Your task to perform on an android device: uninstall "PUBG MOBILE" Image 0: 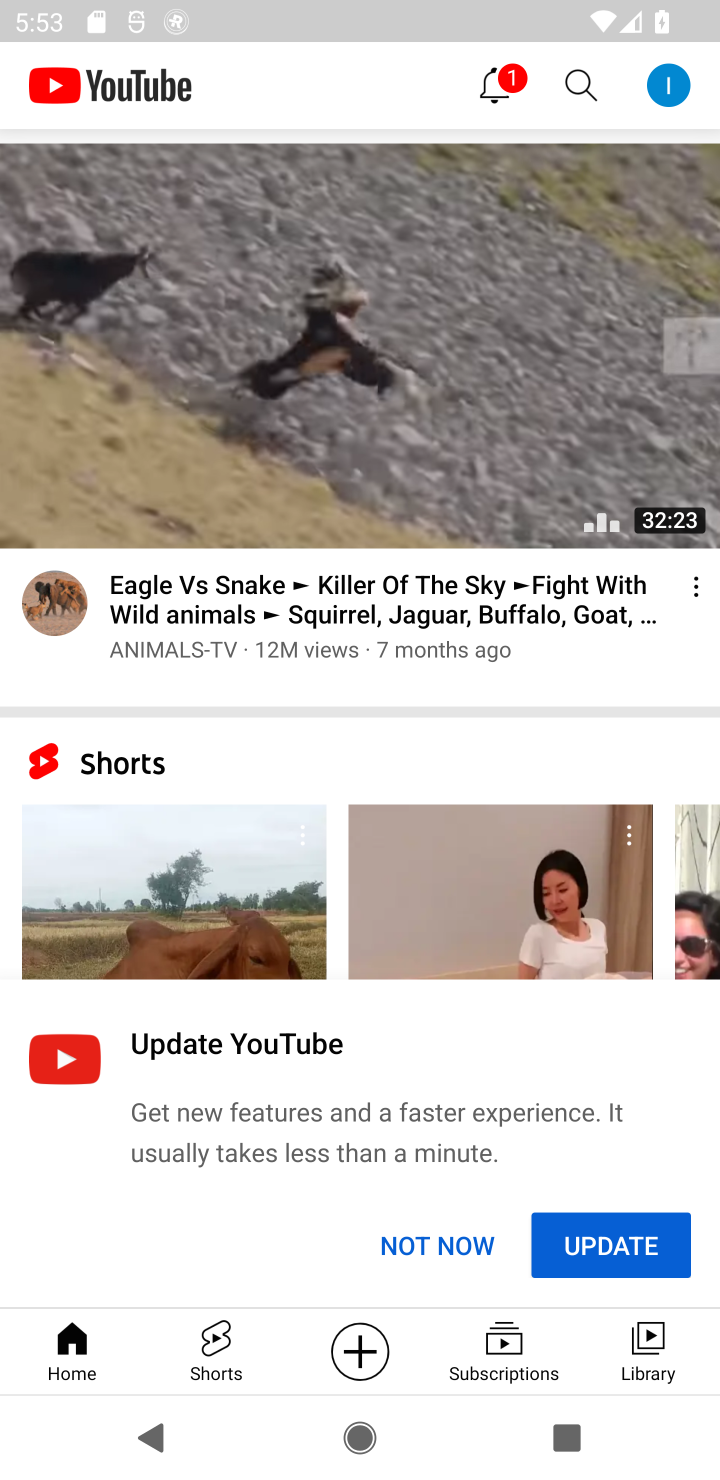
Step 0: press home button
Your task to perform on an android device: uninstall "PUBG MOBILE" Image 1: 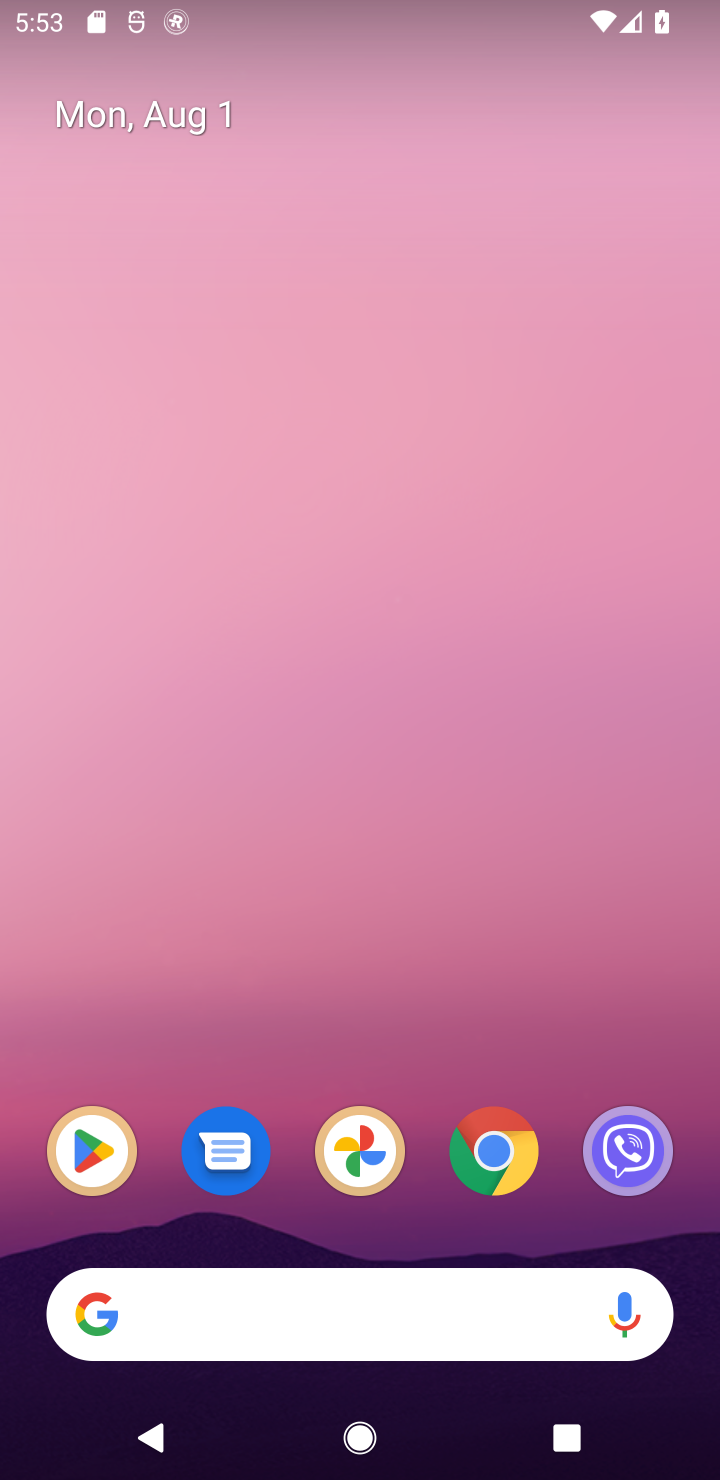
Step 1: click (90, 1148)
Your task to perform on an android device: uninstall "PUBG MOBILE" Image 2: 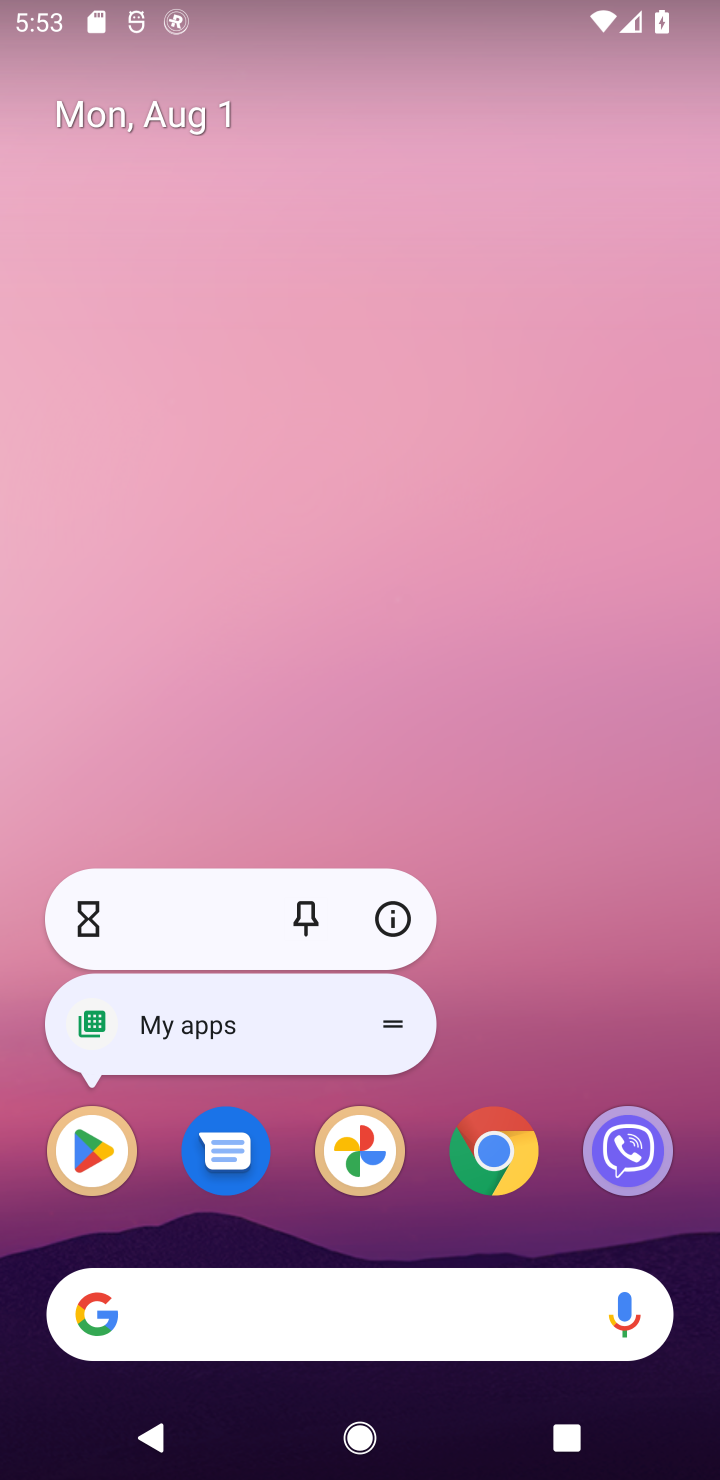
Step 2: click (88, 1158)
Your task to perform on an android device: uninstall "PUBG MOBILE" Image 3: 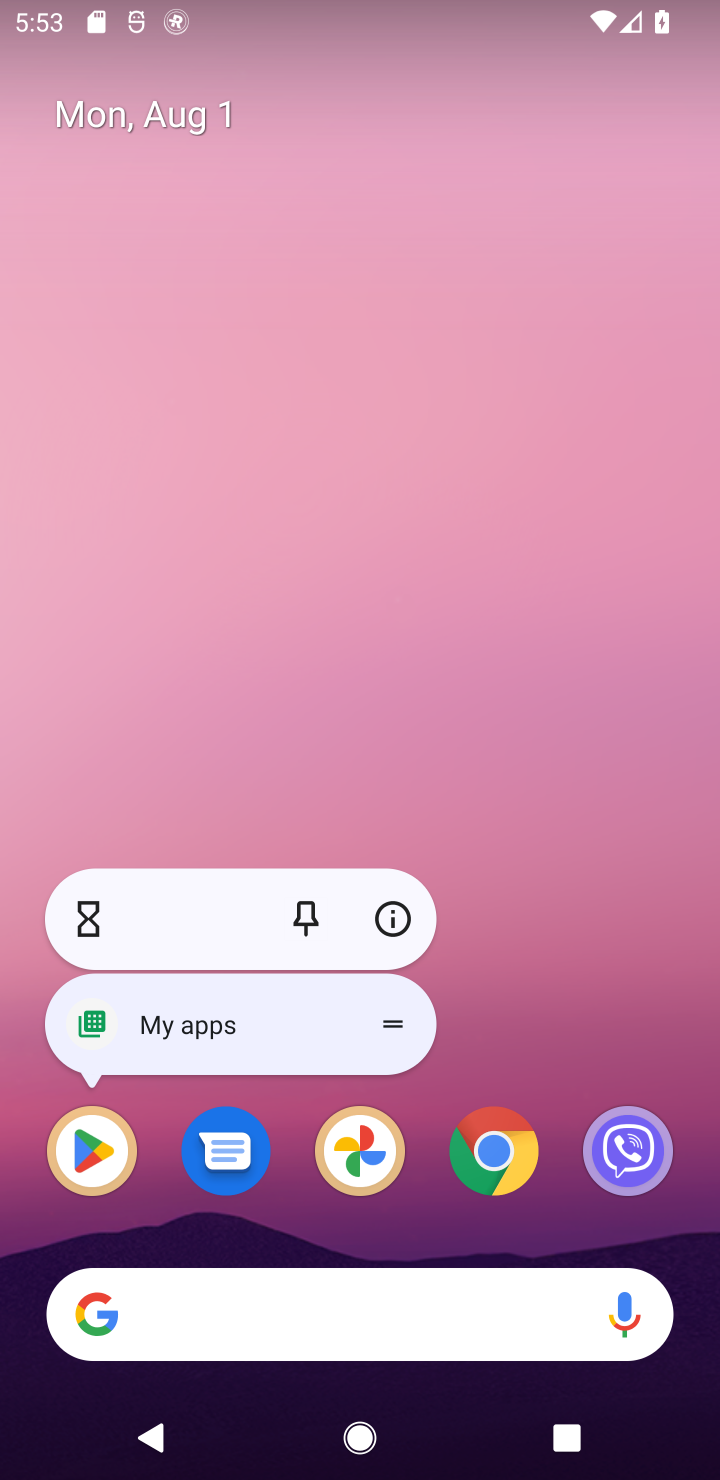
Step 3: click (88, 1158)
Your task to perform on an android device: uninstall "PUBG MOBILE" Image 4: 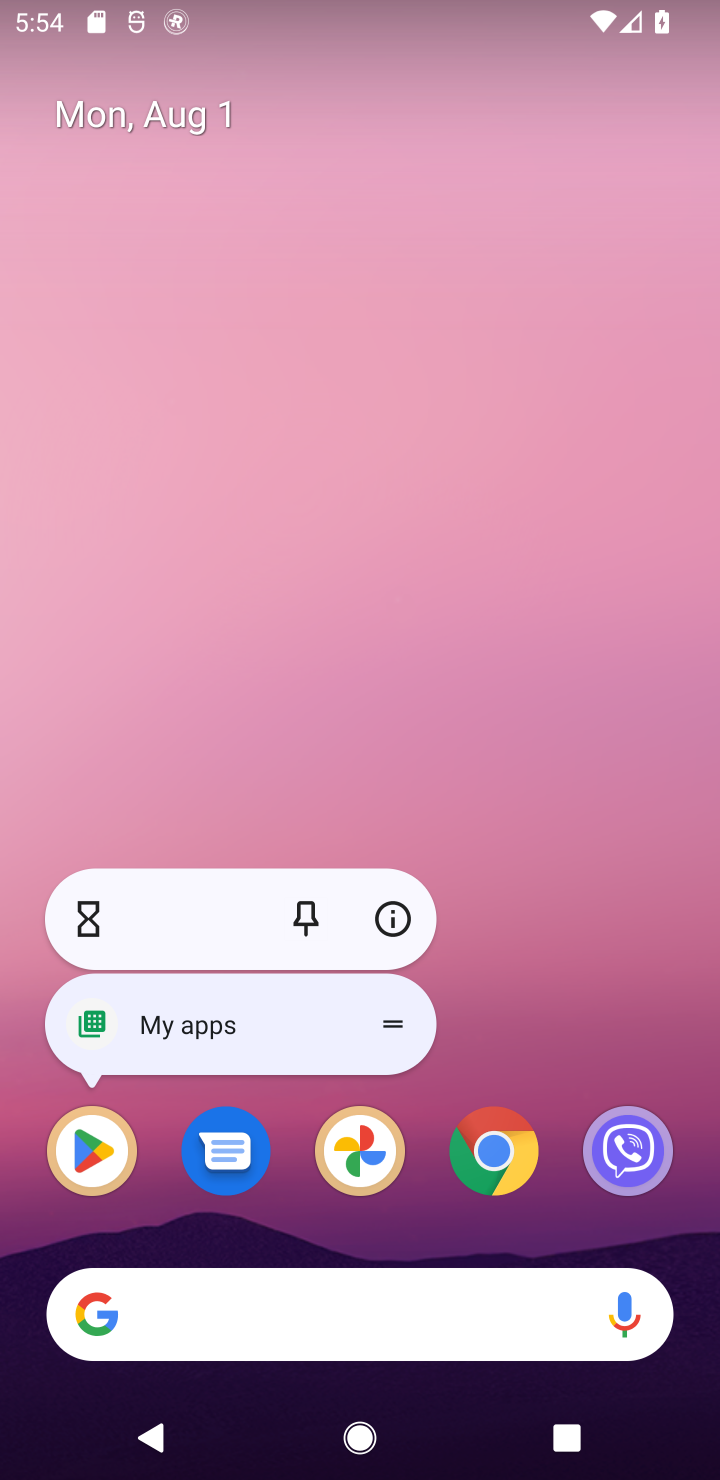
Step 4: click (88, 1158)
Your task to perform on an android device: uninstall "PUBG MOBILE" Image 5: 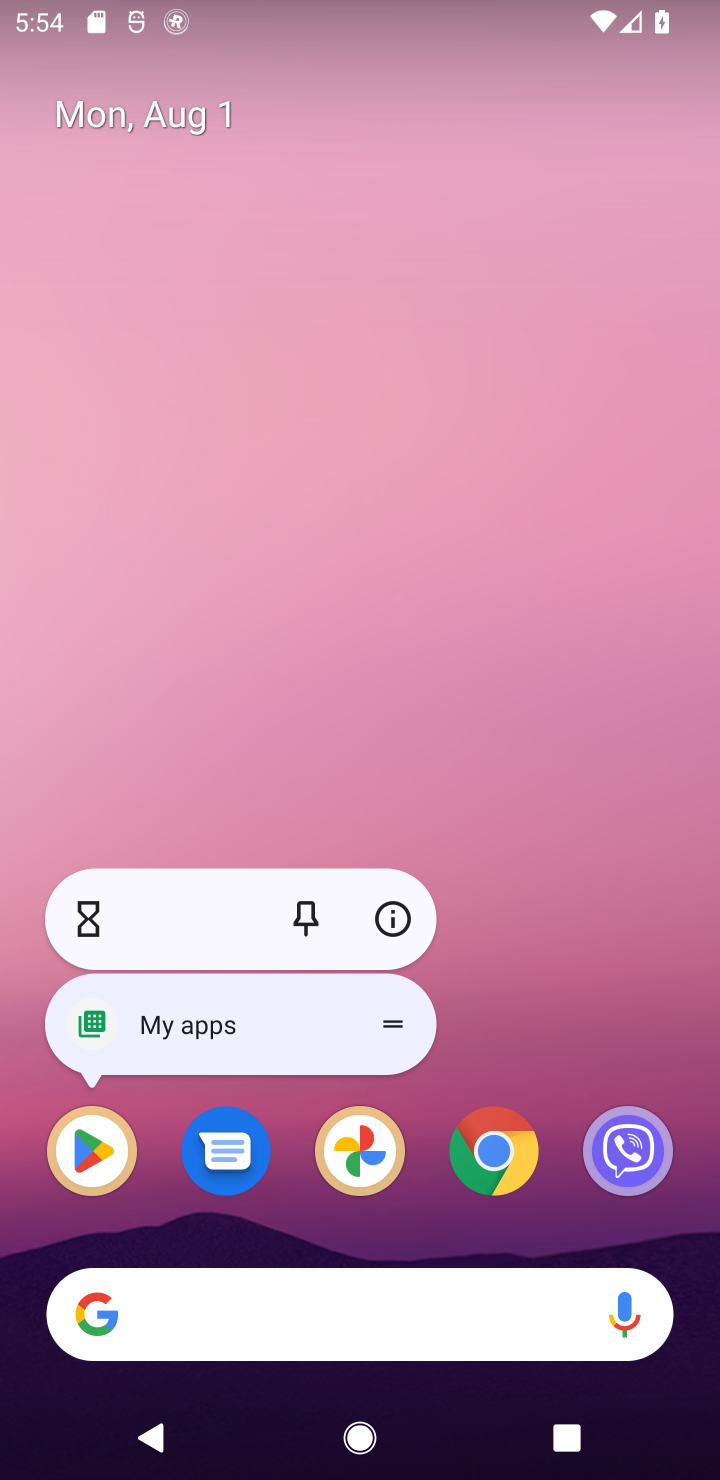
Step 5: click (88, 1158)
Your task to perform on an android device: uninstall "PUBG MOBILE" Image 6: 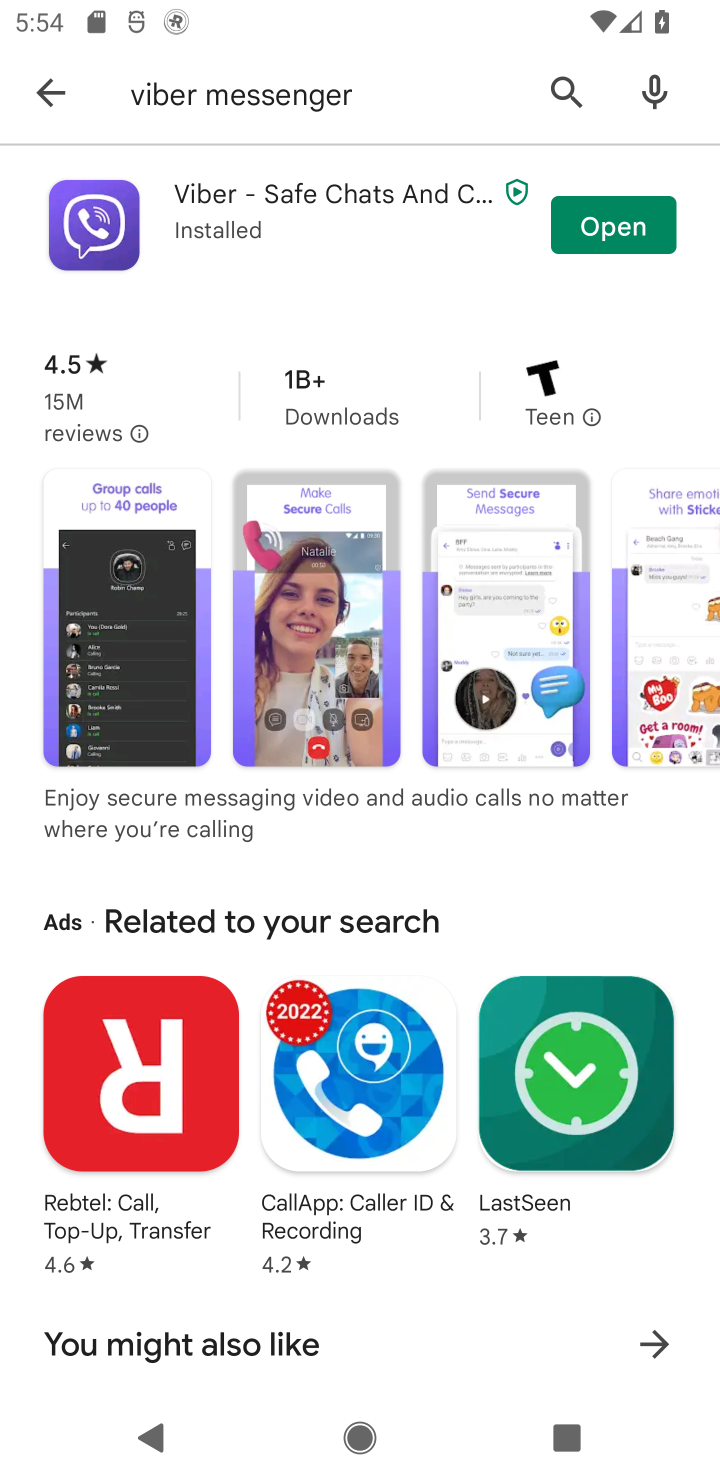
Step 6: click (577, 90)
Your task to perform on an android device: uninstall "PUBG MOBILE" Image 7: 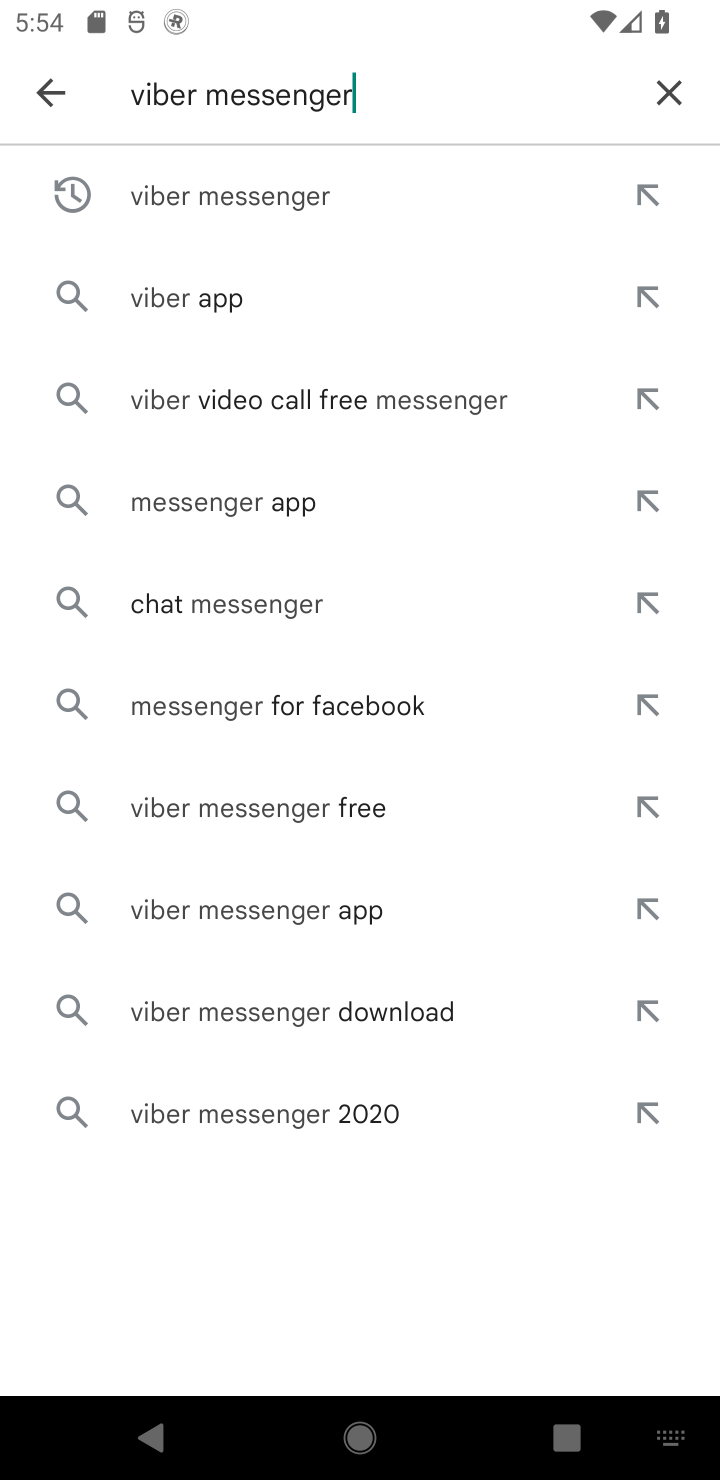
Step 7: click (686, 91)
Your task to perform on an android device: uninstall "PUBG MOBILE" Image 8: 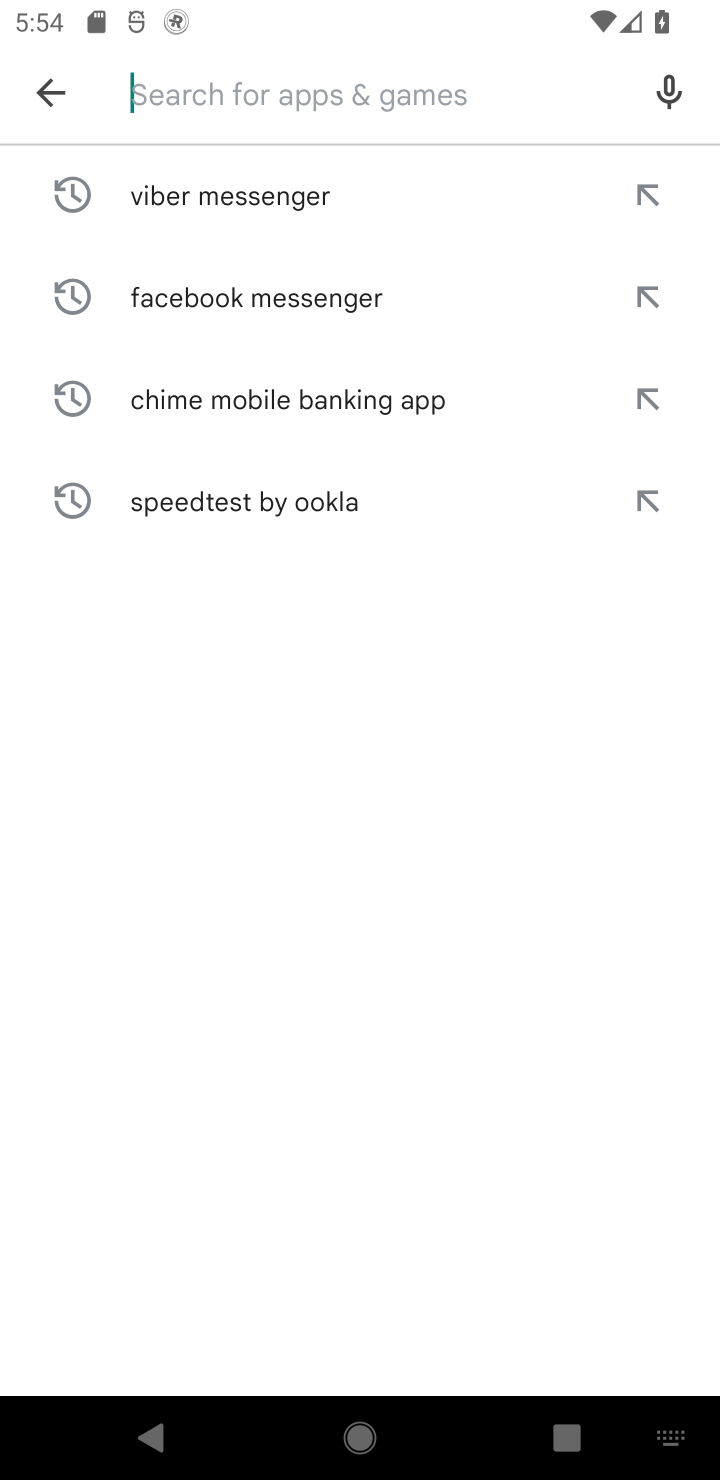
Step 8: type "PUBG MOBILE"
Your task to perform on an android device: uninstall "PUBG MOBILE" Image 9: 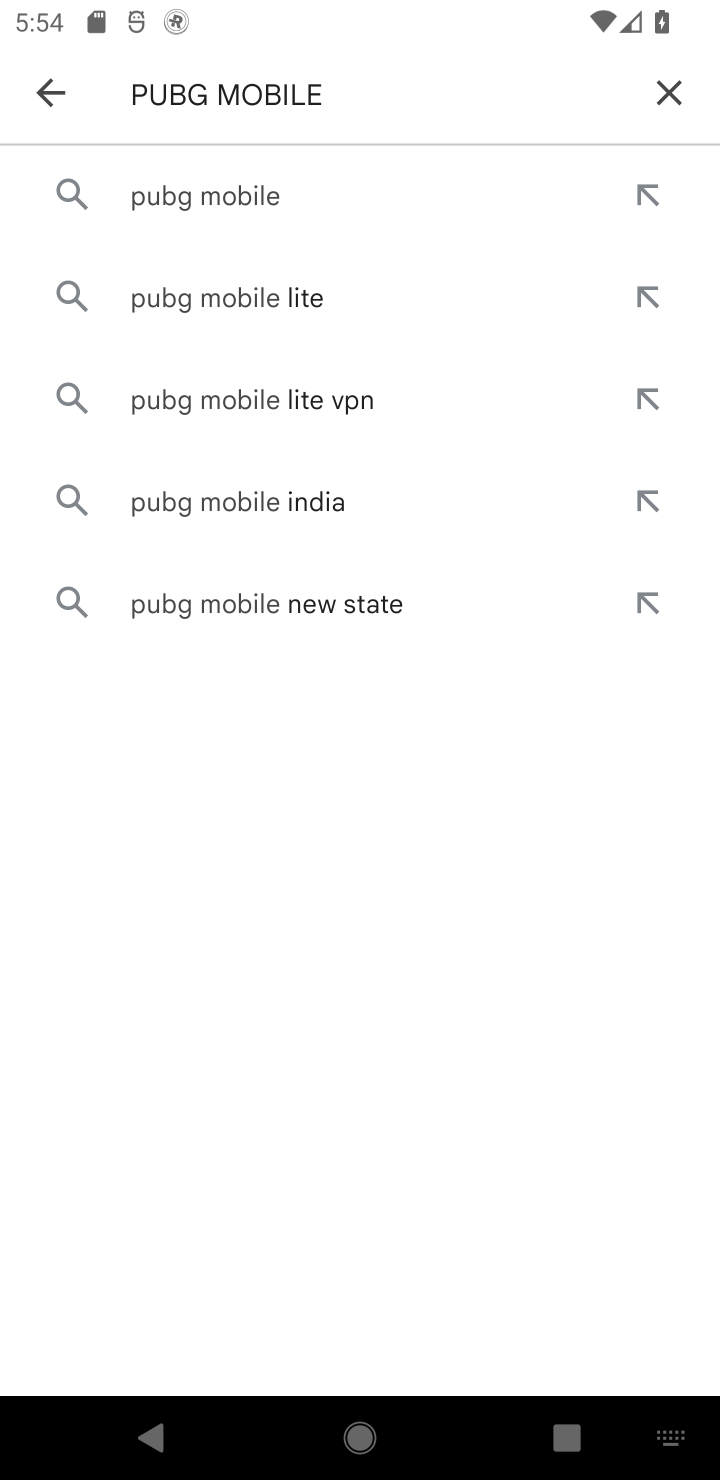
Step 9: click (250, 192)
Your task to perform on an android device: uninstall "PUBG MOBILE" Image 10: 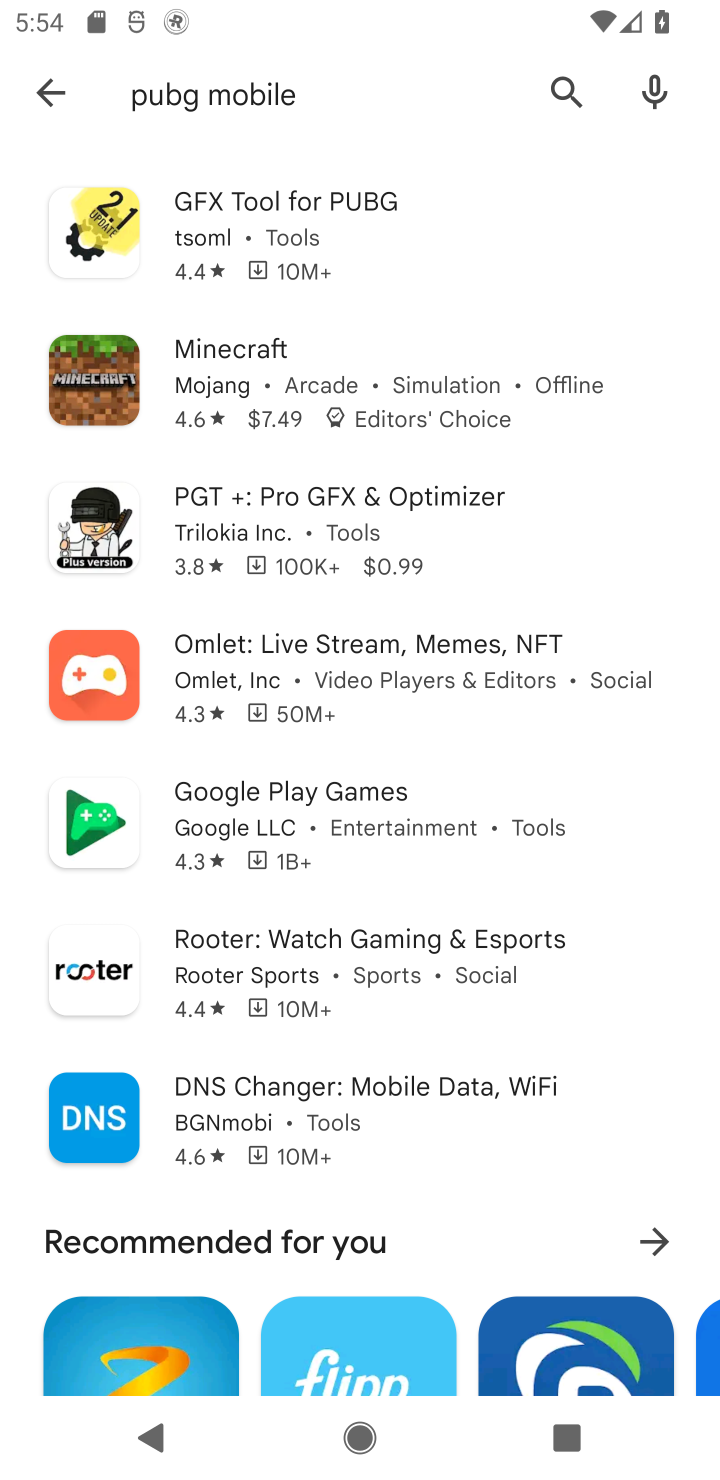
Step 10: task complete